Your task to perform on an android device: Go to location settings Image 0: 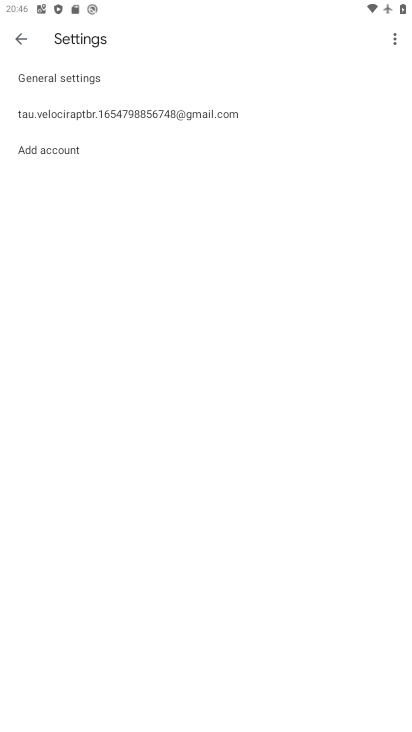
Step 0: press home button
Your task to perform on an android device: Go to location settings Image 1: 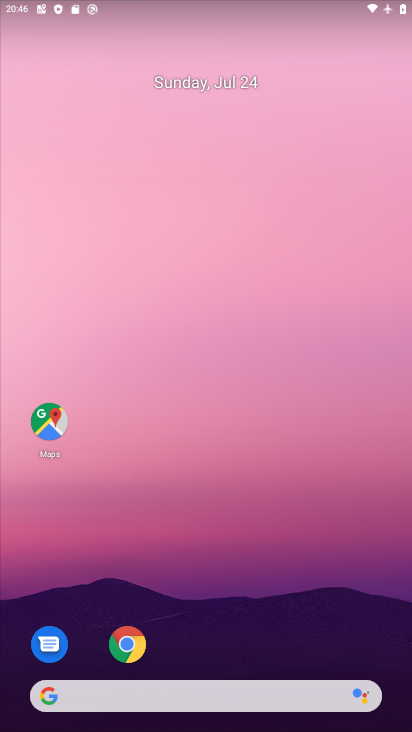
Step 1: drag from (379, 656) to (325, 173)
Your task to perform on an android device: Go to location settings Image 2: 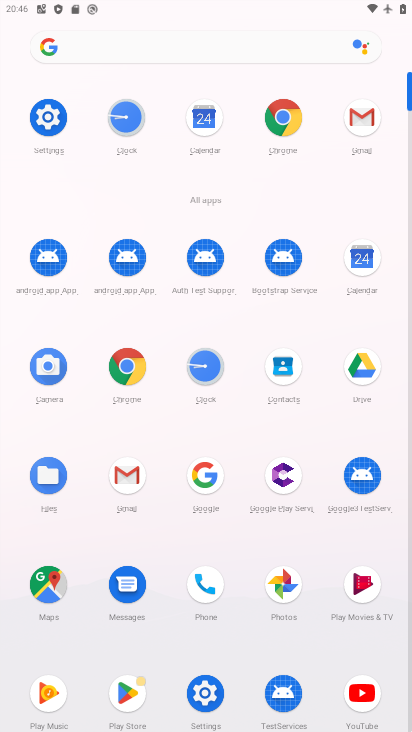
Step 2: click (205, 696)
Your task to perform on an android device: Go to location settings Image 3: 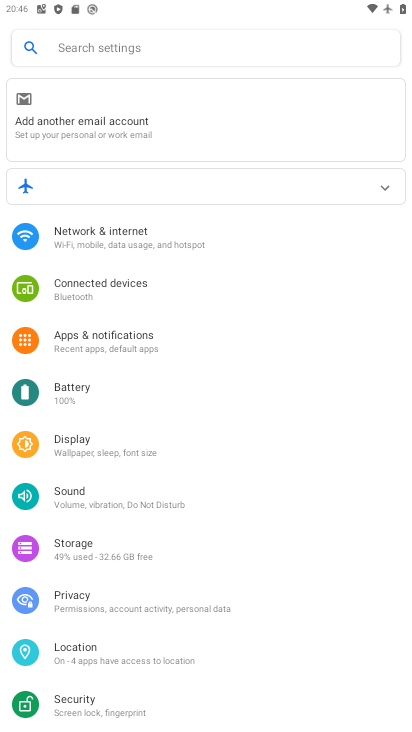
Step 3: click (94, 639)
Your task to perform on an android device: Go to location settings Image 4: 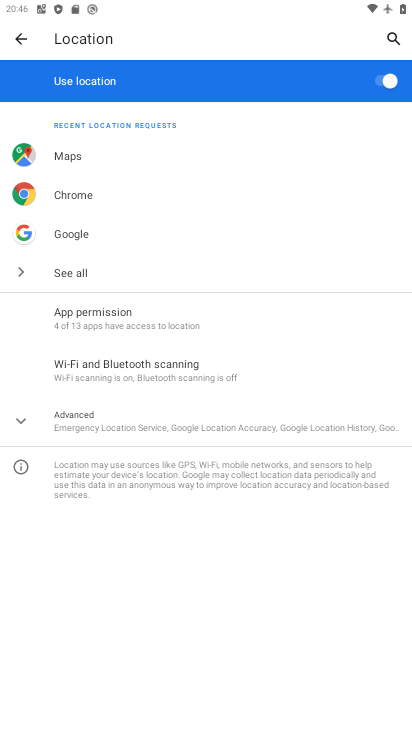
Step 4: click (24, 423)
Your task to perform on an android device: Go to location settings Image 5: 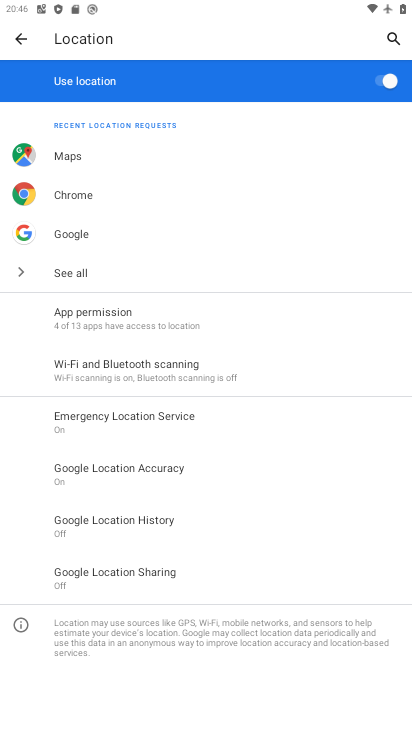
Step 5: task complete